Your task to perform on an android device: turn on the 12-hour format for clock Image 0: 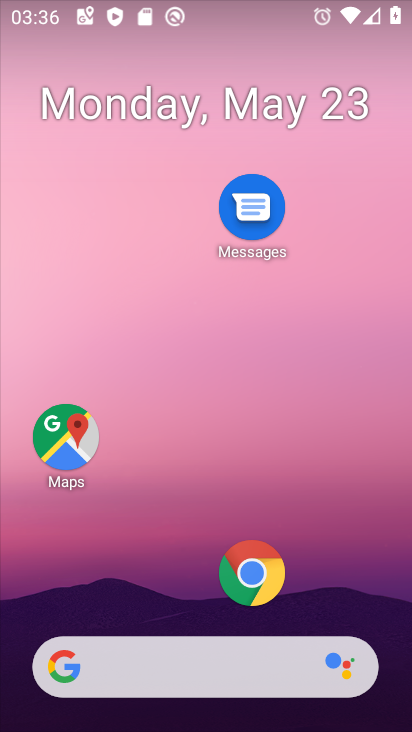
Step 0: drag from (233, 646) to (330, 0)
Your task to perform on an android device: turn on the 12-hour format for clock Image 1: 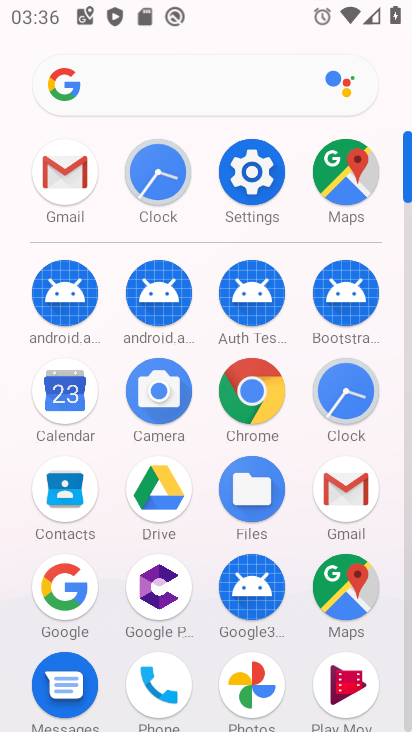
Step 1: click (361, 381)
Your task to perform on an android device: turn on the 12-hour format for clock Image 2: 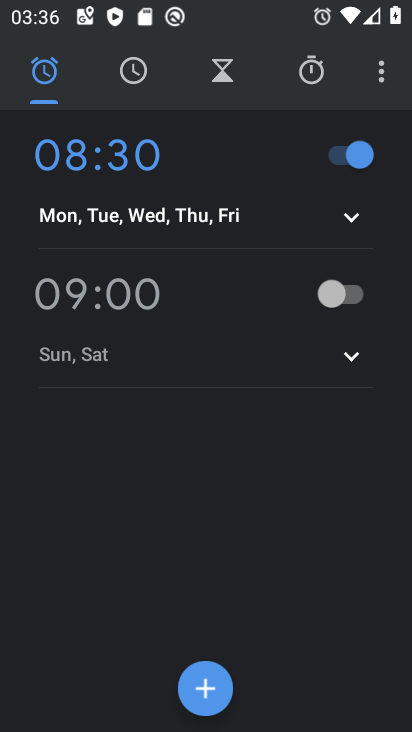
Step 2: click (377, 70)
Your task to perform on an android device: turn on the 12-hour format for clock Image 3: 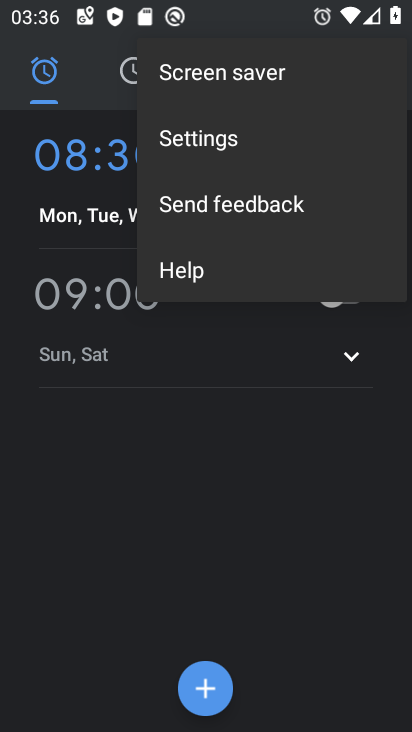
Step 3: click (247, 145)
Your task to perform on an android device: turn on the 12-hour format for clock Image 4: 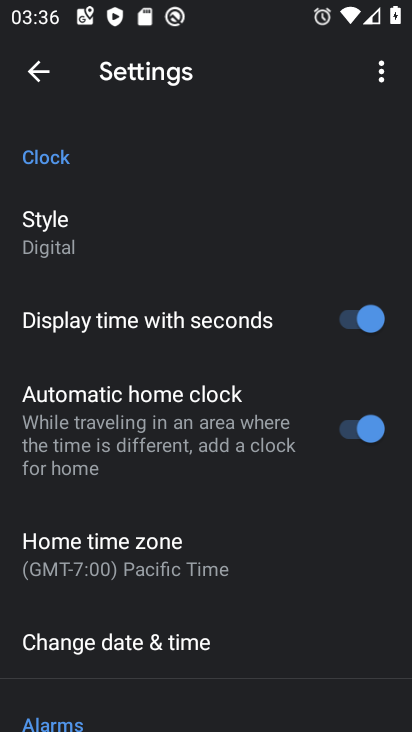
Step 4: drag from (322, 610) to (266, 234)
Your task to perform on an android device: turn on the 12-hour format for clock Image 5: 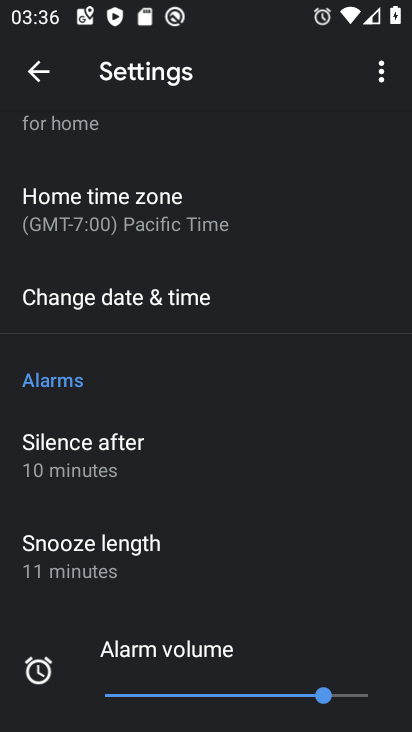
Step 5: click (184, 311)
Your task to perform on an android device: turn on the 12-hour format for clock Image 6: 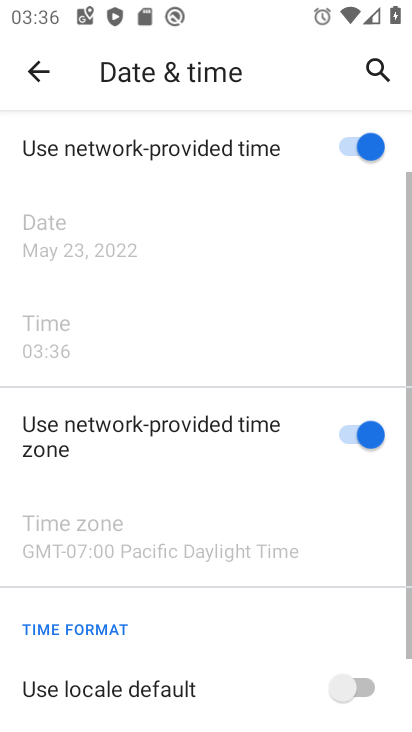
Step 6: drag from (250, 530) to (287, 1)
Your task to perform on an android device: turn on the 12-hour format for clock Image 7: 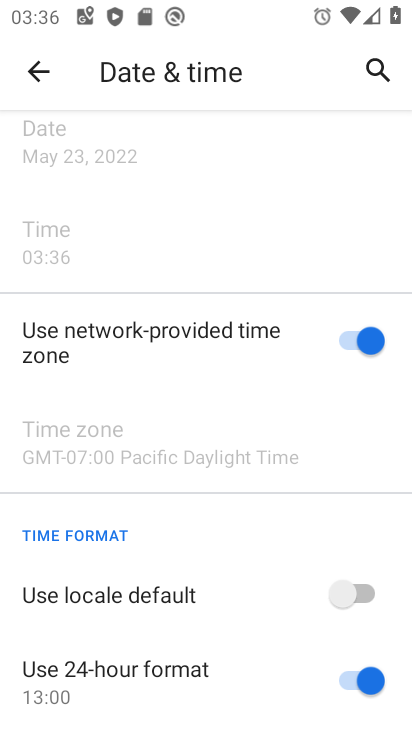
Step 7: click (347, 679)
Your task to perform on an android device: turn on the 12-hour format for clock Image 8: 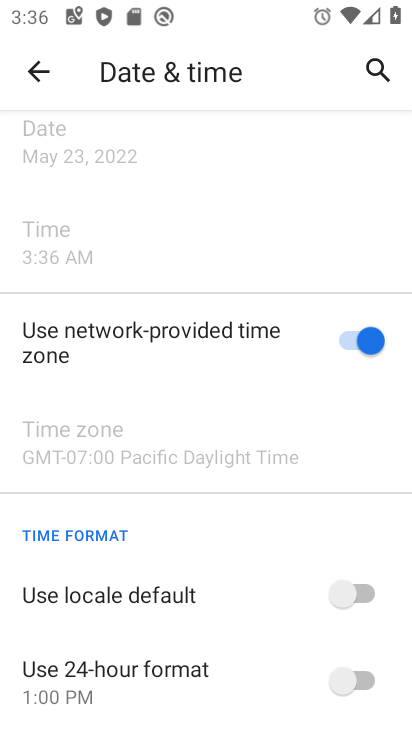
Step 8: task complete